Your task to perform on an android device: Go to sound settings Image 0: 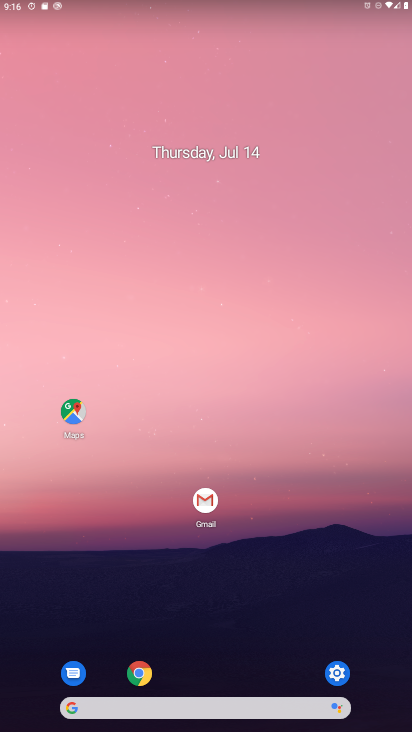
Step 0: click (336, 672)
Your task to perform on an android device: Go to sound settings Image 1: 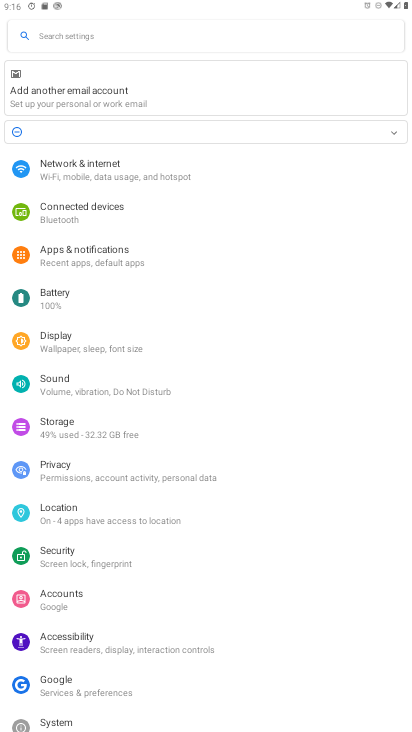
Step 1: click (79, 382)
Your task to perform on an android device: Go to sound settings Image 2: 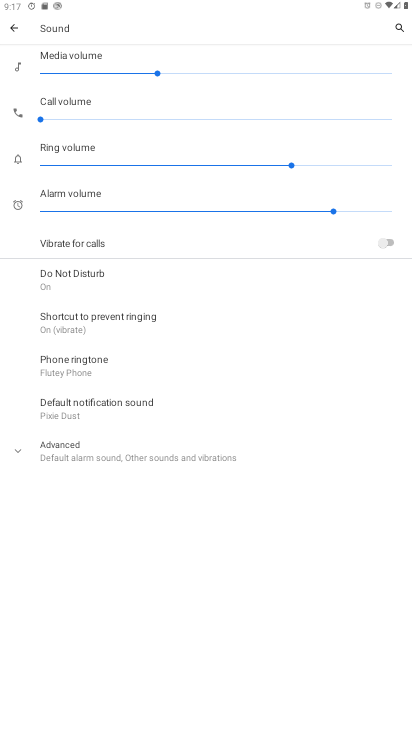
Step 2: task complete